Your task to perform on an android device: turn off notifications settings in the gmail app Image 0: 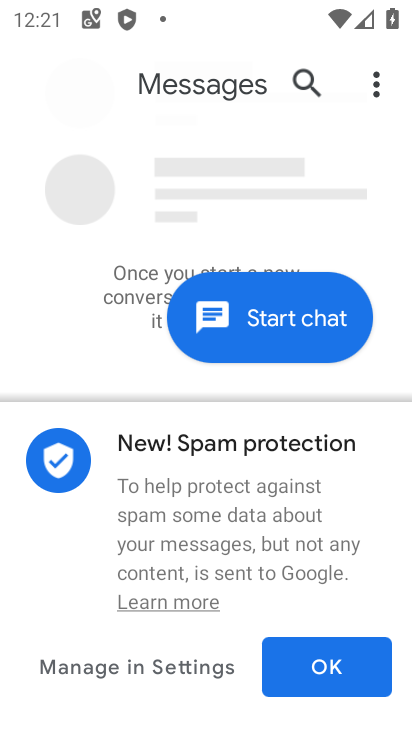
Step 0: press home button
Your task to perform on an android device: turn off notifications settings in the gmail app Image 1: 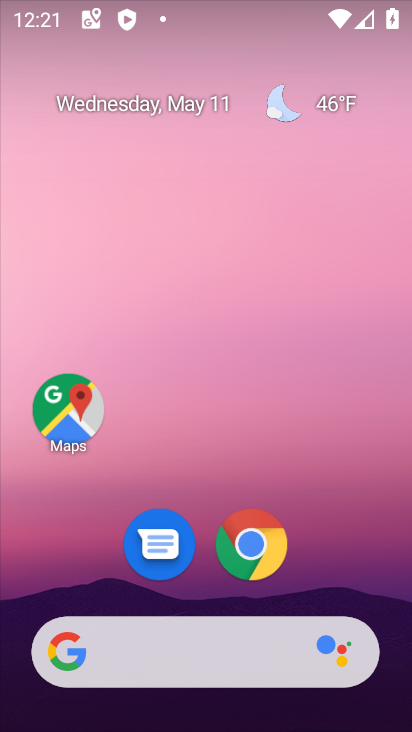
Step 1: drag from (391, 634) to (345, 66)
Your task to perform on an android device: turn off notifications settings in the gmail app Image 2: 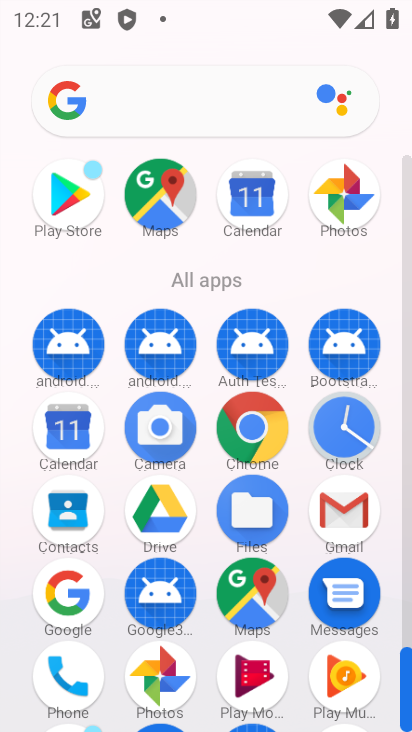
Step 2: click (403, 626)
Your task to perform on an android device: turn off notifications settings in the gmail app Image 3: 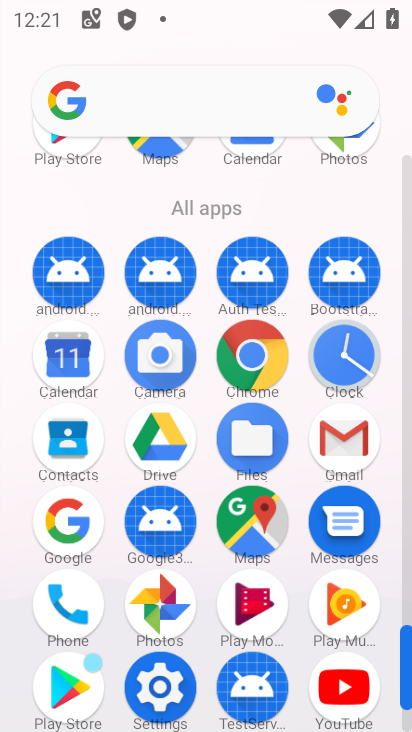
Step 3: click (341, 434)
Your task to perform on an android device: turn off notifications settings in the gmail app Image 4: 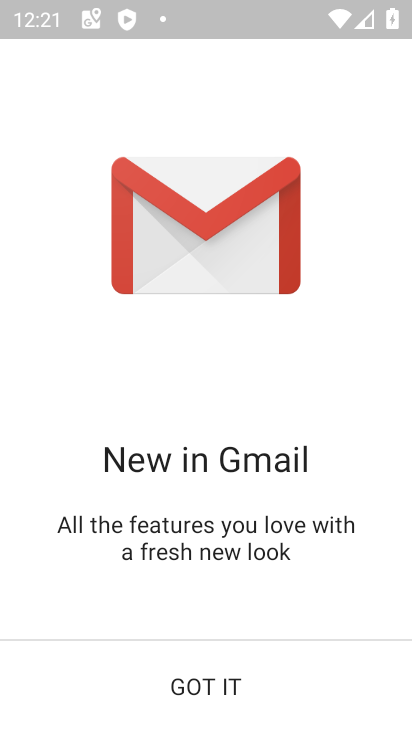
Step 4: click (198, 681)
Your task to perform on an android device: turn off notifications settings in the gmail app Image 5: 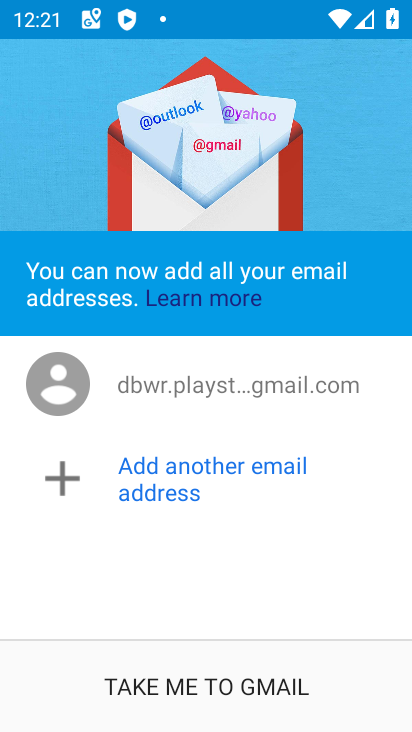
Step 5: click (187, 684)
Your task to perform on an android device: turn off notifications settings in the gmail app Image 6: 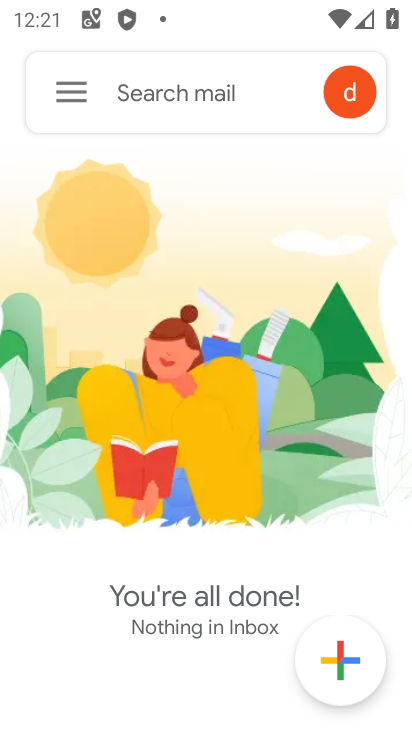
Step 6: click (64, 88)
Your task to perform on an android device: turn off notifications settings in the gmail app Image 7: 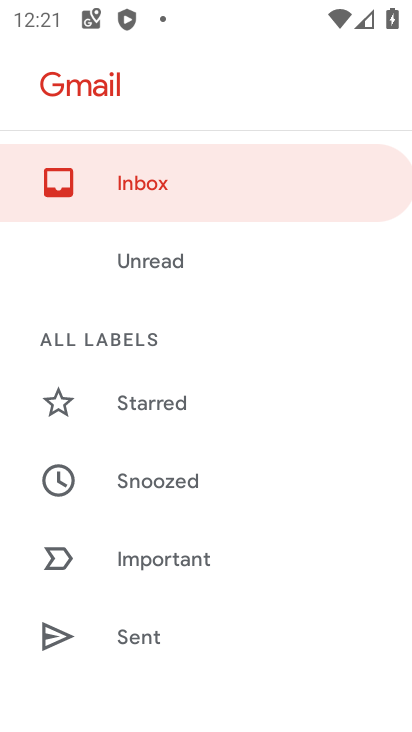
Step 7: drag from (267, 631) to (291, 290)
Your task to perform on an android device: turn off notifications settings in the gmail app Image 8: 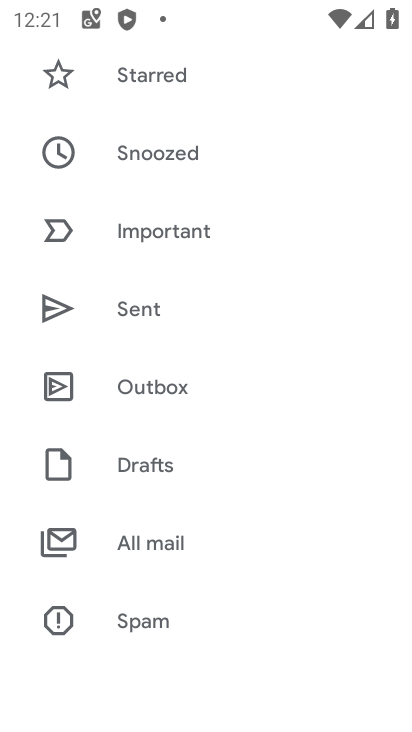
Step 8: drag from (261, 627) to (303, 139)
Your task to perform on an android device: turn off notifications settings in the gmail app Image 9: 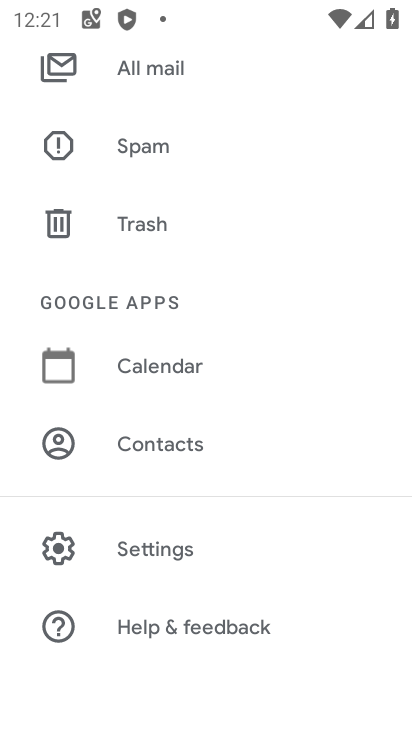
Step 9: click (139, 551)
Your task to perform on an android device: turn off notifications settings in the gmail app Image 10: 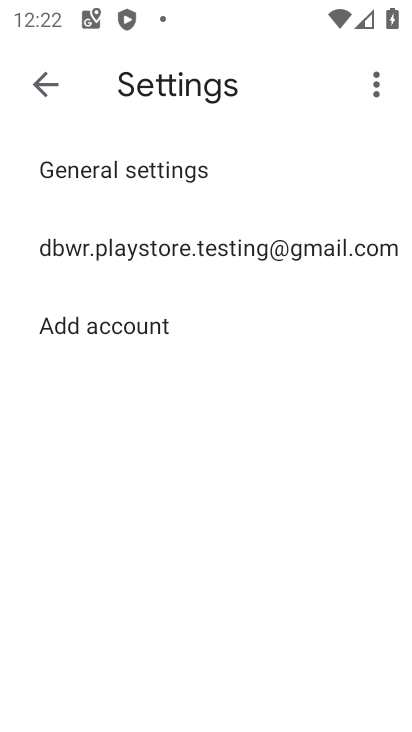
Step 10: click (138, 247)
Your task to perform on an android device: turn off notifications settings in the gmail app Image 11: 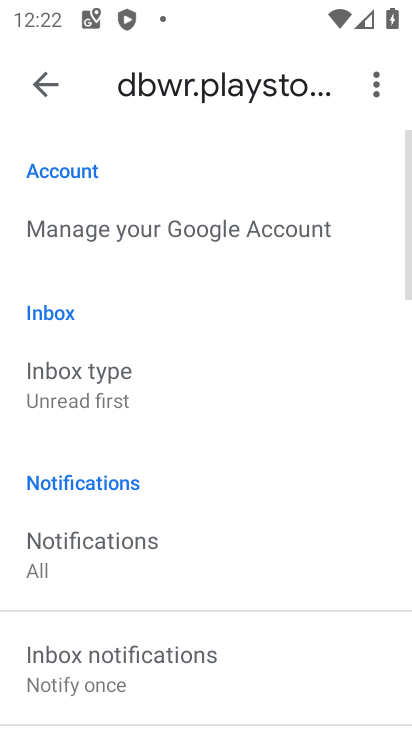
Step 11: drag from (203, 601) to (234, 109)
Your task to perform on an android device: turn off notifications settings in the gmail app Image 12: 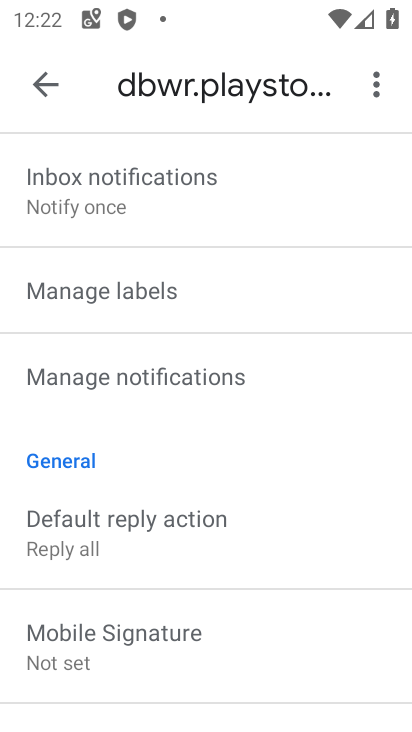
Step 12: click (119, 371)
Your task to perform on an android device: turn off notifications settings in the gmail app Image 13: 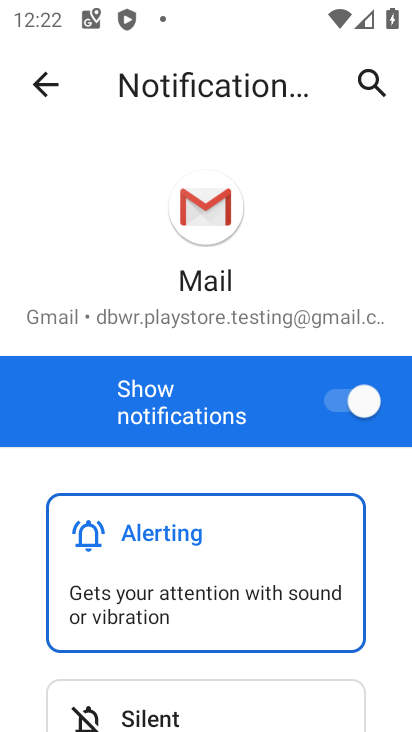
Step 13: click (327, 394)
Your task to perform on an android device: turn off notifications settings in the gmail app Image 14: 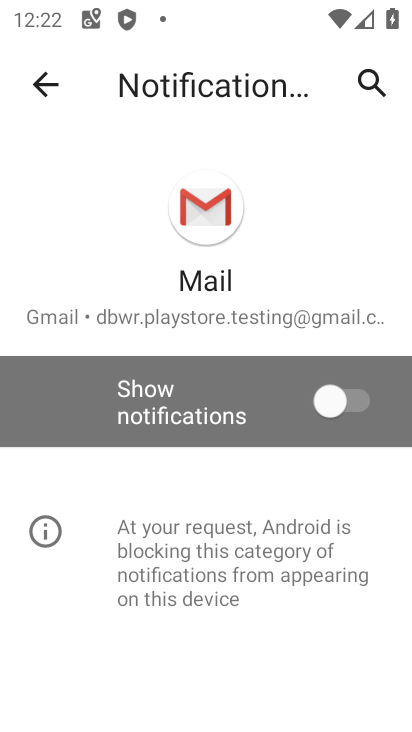
Step 14: task complete